Your task to perform on an android device: Turn off the flashlight Image 0: 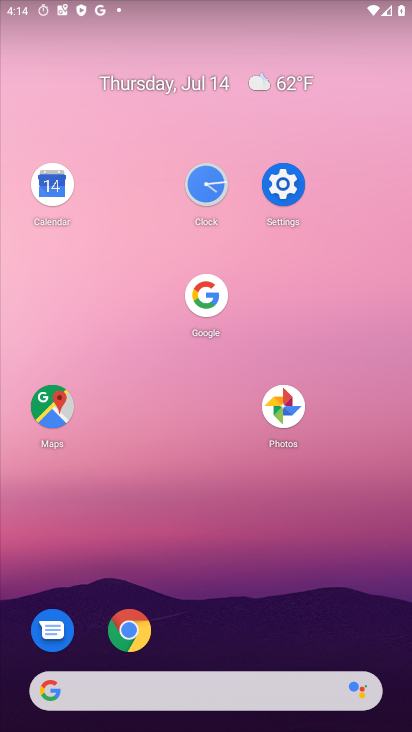
Step 0: drag from (273, 28) to (322, 379)
Your task to perform on an android device: Turn off the flashlight Image 1: 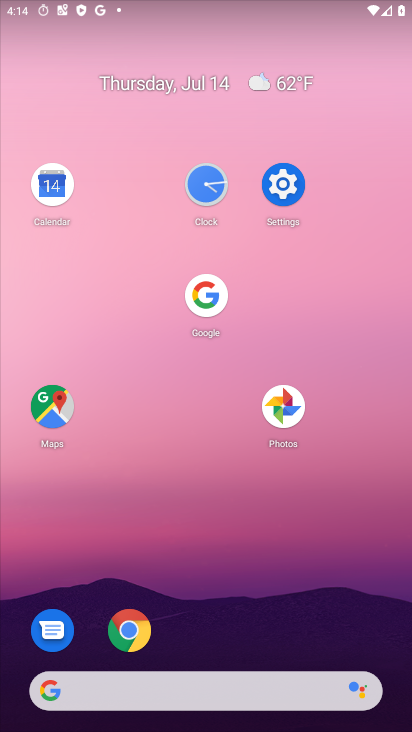
Step 1: task complete